Your task to perform on an android device: turn on javascript in the chrome app Image 0: 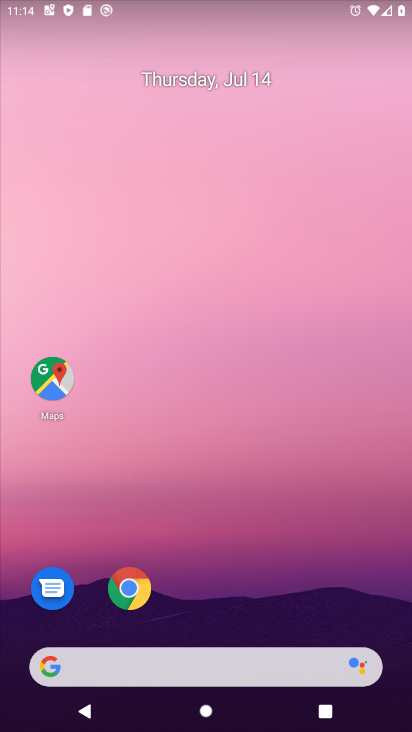
Step 0: click (127, 586)
Your task to perform on an android device: turn on javascript in the chrome app Image 1: 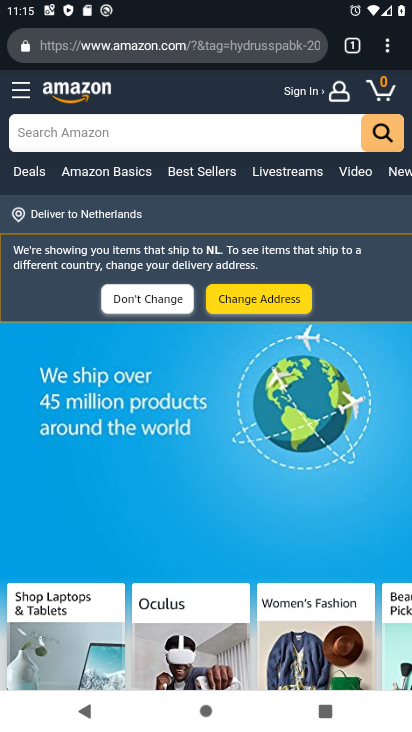
Step 1: click (384, 52)
Your task to perform on an android device: turn on javascript in the chrome app Image 2: 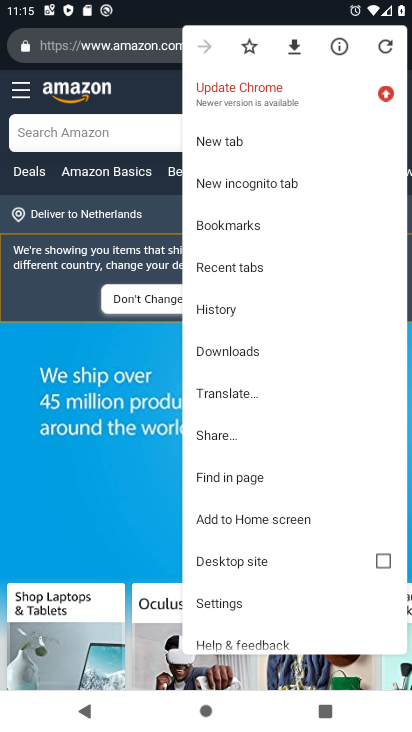
Step 2: click (232, 600)
Your task to perform on an android device: turn on javascript in the chrome app Image 3: 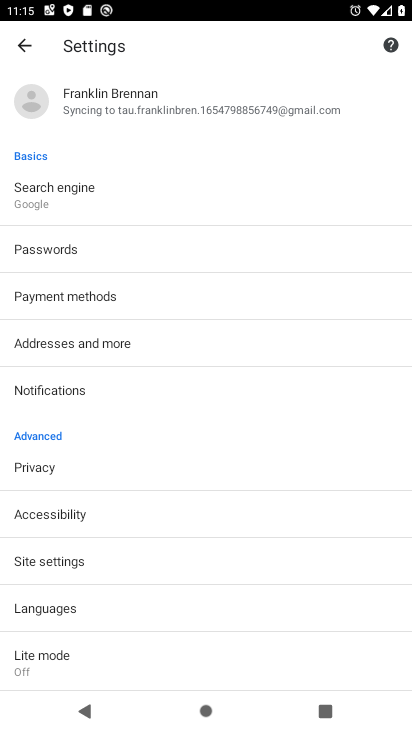
Step 3: click (66, 561)
Your task to perform on an android device: turn on javascript in the chrome app Image 4: 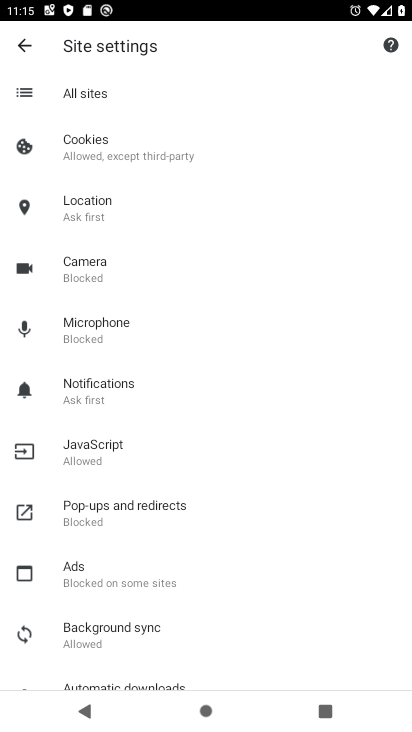
Step 4: click (80, 446)
Your task to perform on an android device: turn on javascript in the chrome app Image 5: 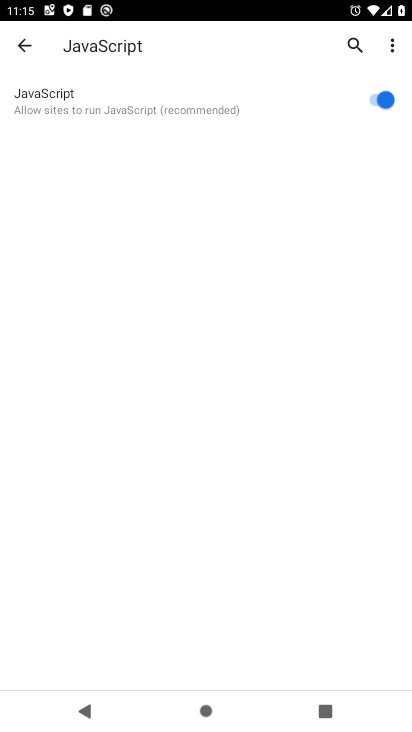
Step 5: task complete